Your task to perform on an android device: turn off location Image 0: 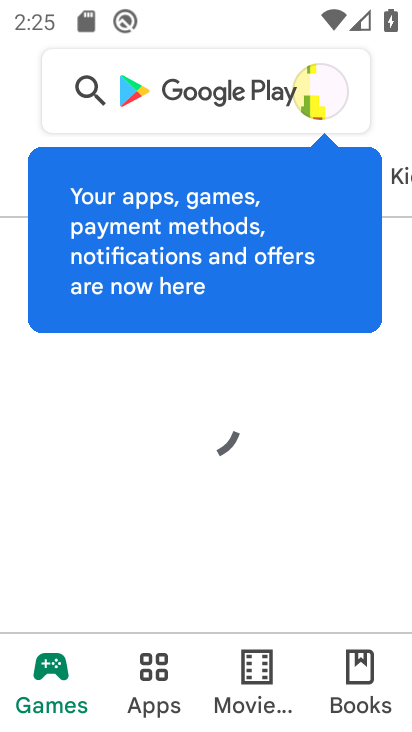
Step 0: press back button
Your task to perform on an android device: turn off location Image 1: 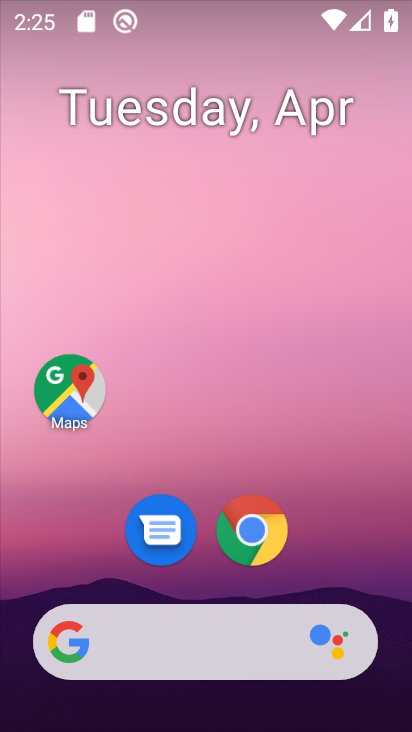
Step 1: drag from (191, 721) to (187, 46)
Your task to perform on an android device: turn off location Image 2: 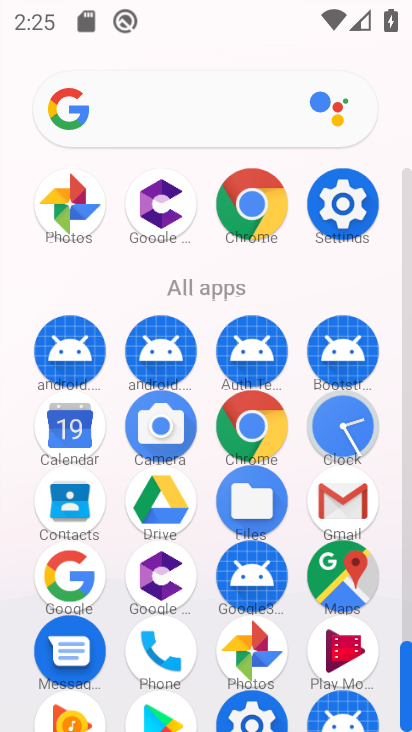
Step 2: click (341, 205)
Your task to perform on an android device: turn off location Image 3: 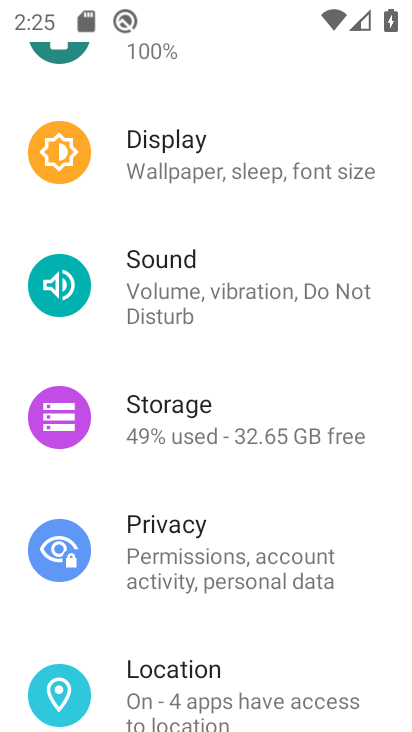
Step 3: click (192, 672)
Your task to perform on an android device: turn off location Image 4: 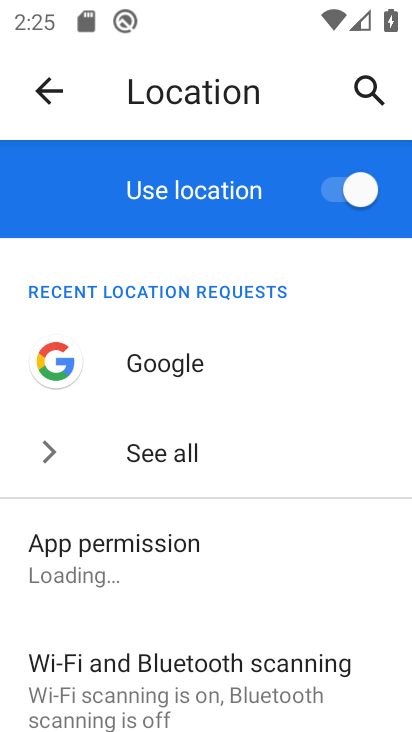
Step 4: click (330, 188)
Your task to perform on an android device: turn off location Image 5: 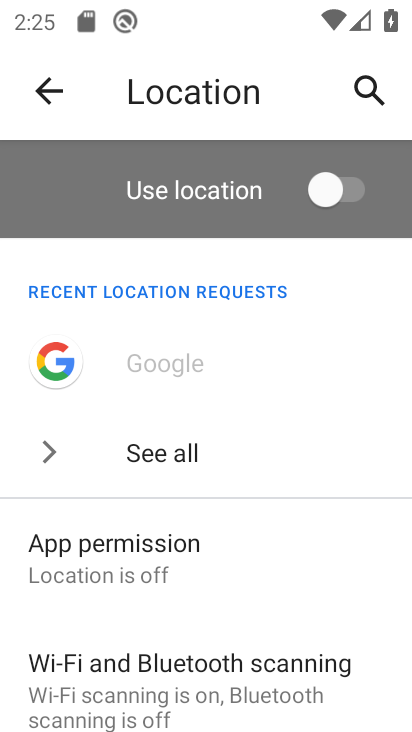
Step 5: task complete